Your task to perform on an android device: toggle improve location accuracy Image 0: 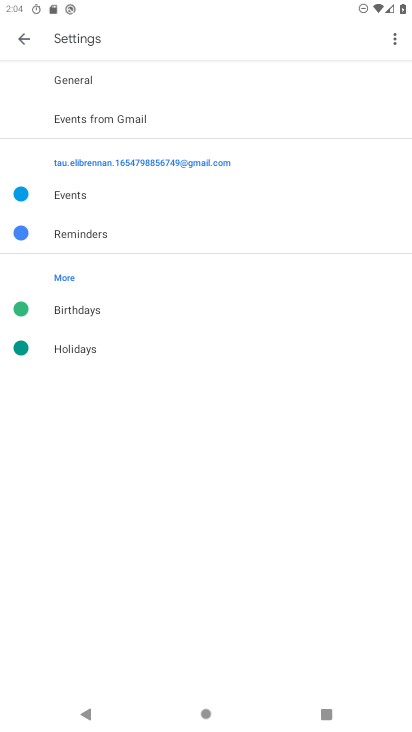
Step 0: press home button
Your task to perform on an android device: toggle improve location accuracy Image 1: 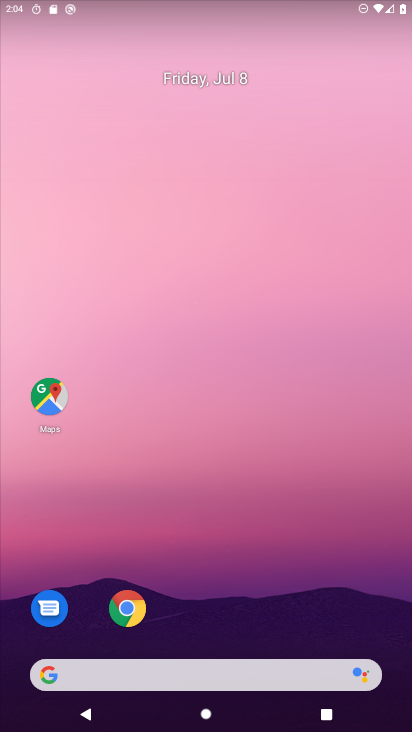
Step 1: drag from (232, 677) to (240, 135)
Your task to perform on an android device: toggle improve location accuracy Image 2: 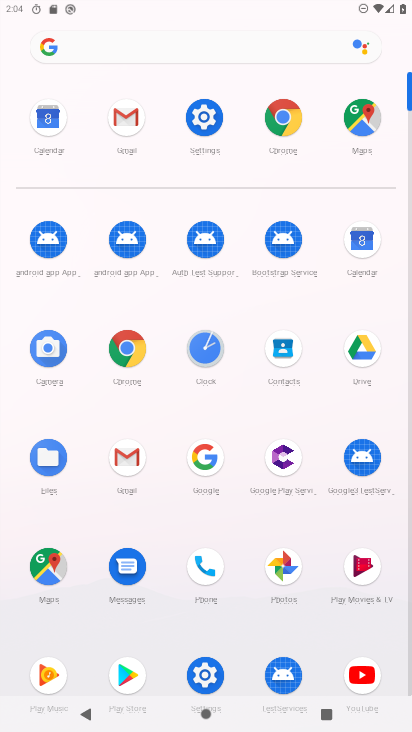
Step 2: click (209, 118)
Your task to perform on an android device: toggle improve location accuracy Image 3: 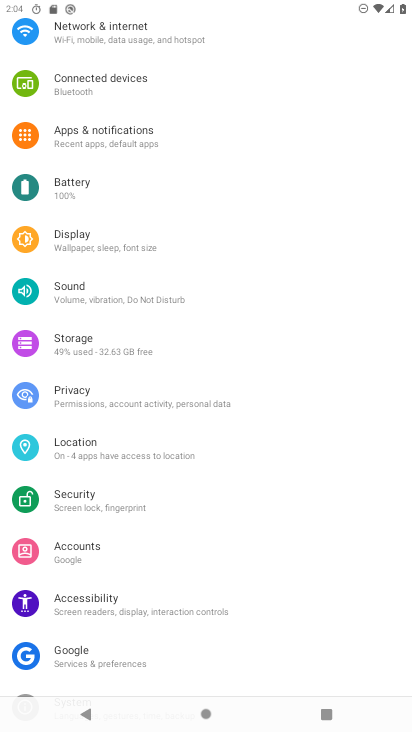
Step 3: click (70, 448)
Your task to perform on an android device: toggle improve location accuracy Image 4: 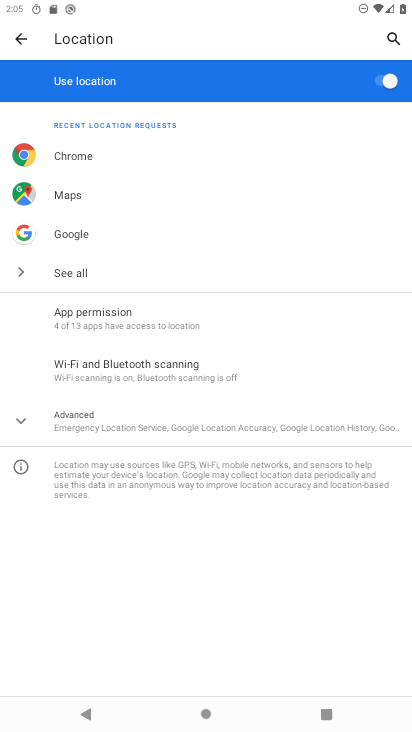
Step 4: click (69, 419)
Your task to perform on an android device: toggle improve location accuracy Image 5: 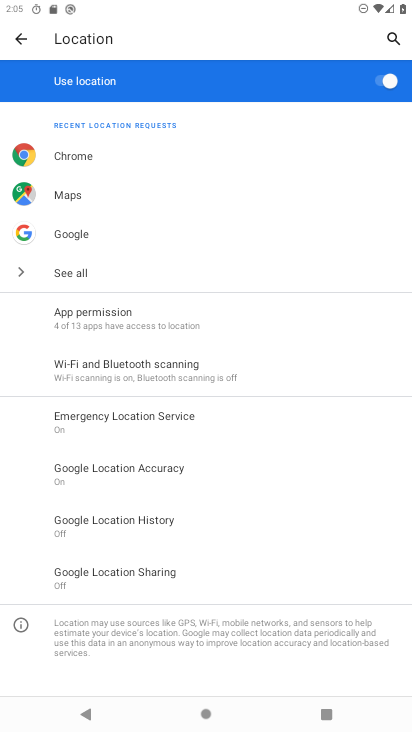
Step 5: click (95, 464)
Your task to perform on an android device: toggle improve location accuracy Image 6: 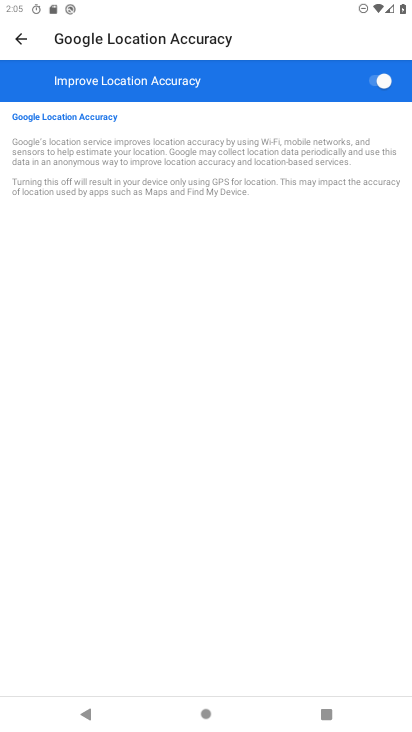
Step 6: click (373, 83)
Your task to perform on an android device: toggle improve location accuracy Image 7: 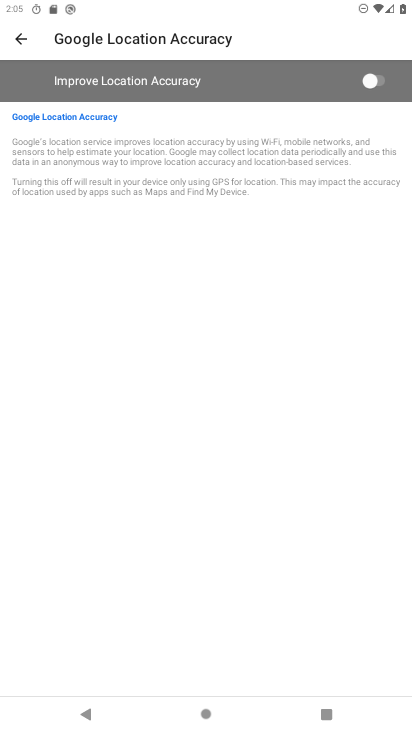
Step 7: task complete